Your task to perform on an android device: turn on notifications settings in the gmail app Image 0: 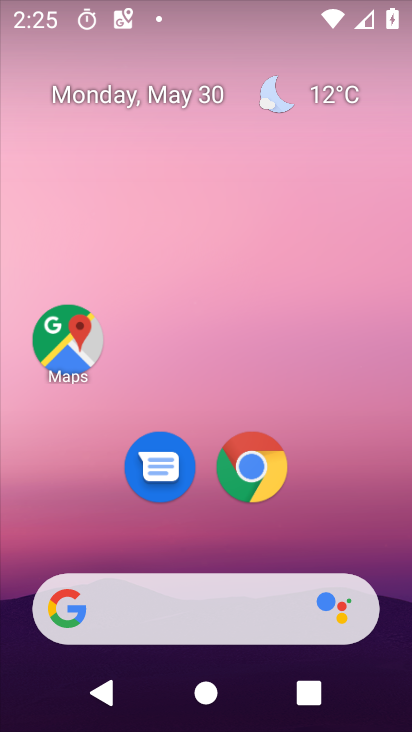
Step 0: drag from (388, 533) to (392, 151)
Your task to perform on an android device: turn on notifications settings in the gmail app Image 1: 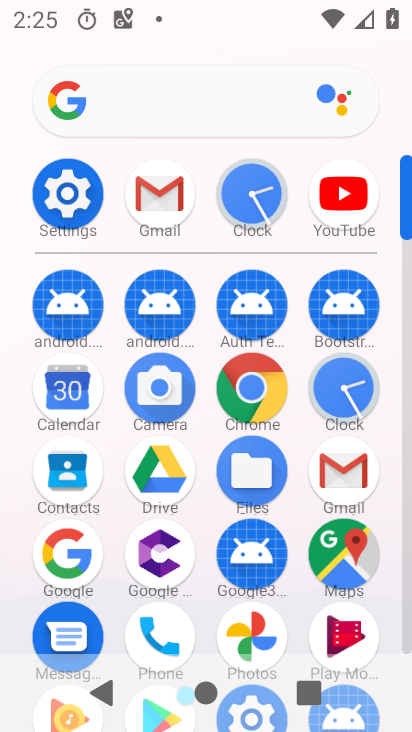
Step 1: click (153, 203)
Your task to perform on an android device: turn on notifications settings in the gmail app Image 2: 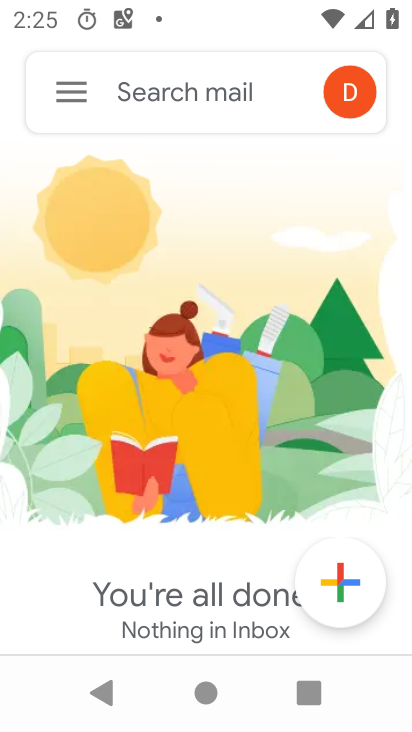
Step 2: click (69, 100)
Your task to perform on an android device: turn on notifications settings in the gmail app Image 3: 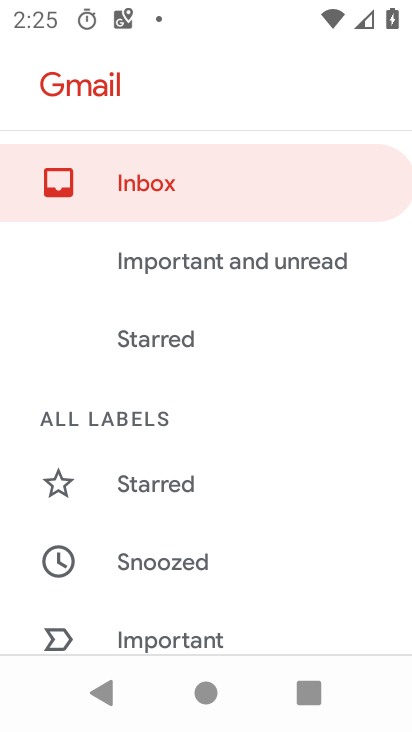
Step 3: drag from (293, 608) to (321, 259)
Your task to perform on an android device: turn on notifications settings in the gmail app Image 4: 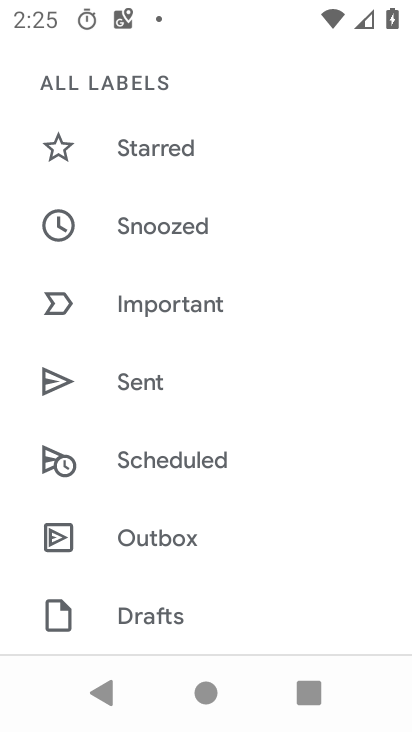
Step 4: drag from (304, 602) to (313, 273)
Your task to perform on an android device: turn on notifications settings in the gmail app Image 5: 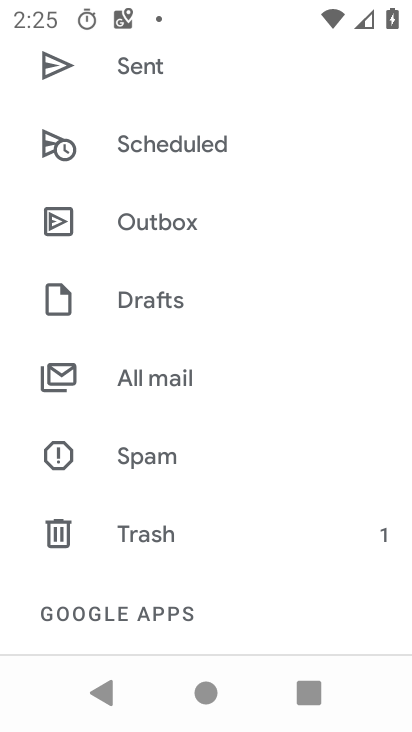
Step 5: drag from (247, 585) to (301, 237)
Your task to perform on an android device: turn on notifications settings in the gmail app Image 6: 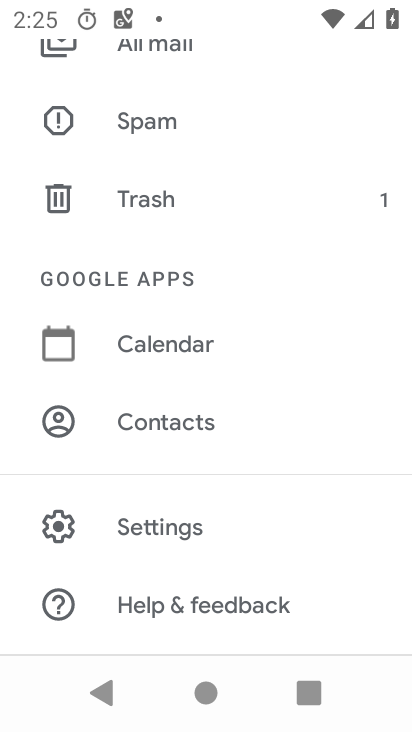
Step 6: drag from (285, 544) to (303, 201)
Your task to perform on an android device: turn on notifications settings in the gmail app Image 7: 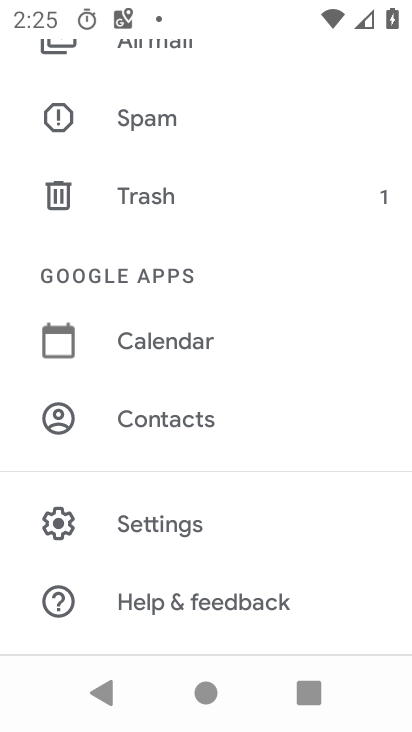
Step 7: click (140, 520)
Your task to perform on an android device: turn on notifications settings in the gmail app Image 8: 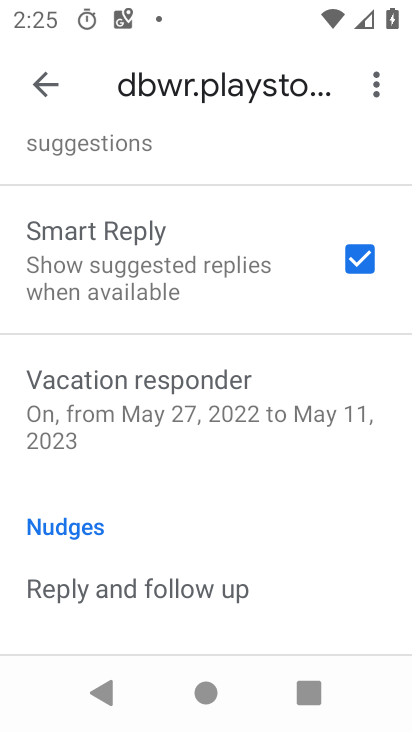
Step 8: click (37, 77)
Your task to perform on an android device: turn on notifications settings in the gmail app Image 9: 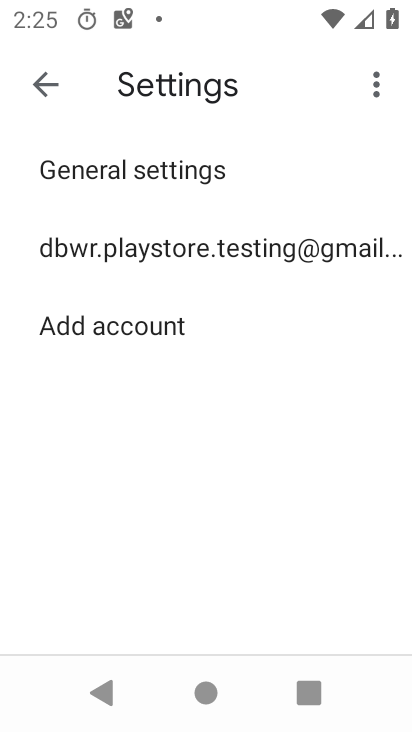
Step 9: click (74, 161)
Your task to perform on an android device: turn on notifications settings in the gmail app Image 10: 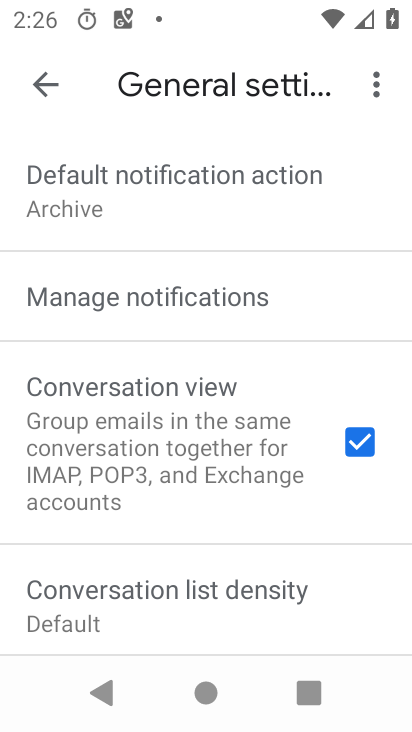
Step 10: drag from (184, 608) to (235, 328)
Your task to perform on an android device: turn on notifications settings in the gmail app Image 11: 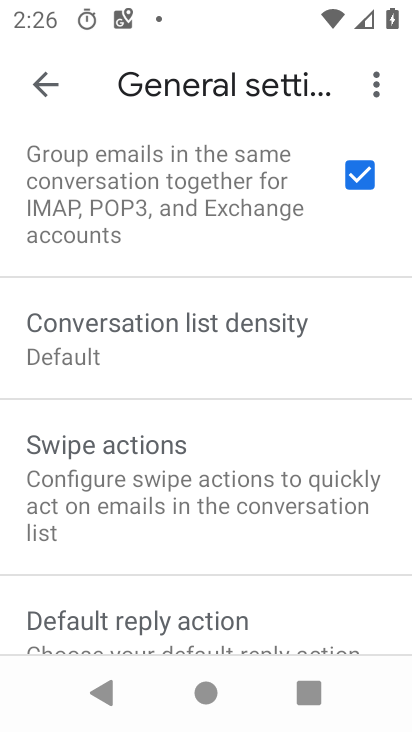
Step 11: drag from (162, 167) to (128, 546)
Your task to perform on an android device: turn on notifications settings in the gmail app Image 12: 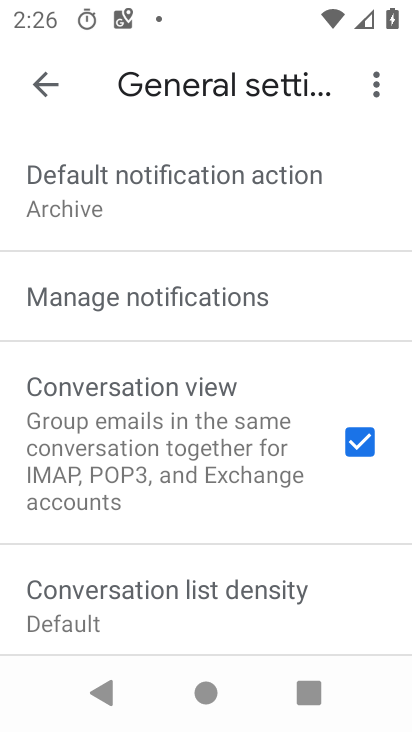
Step 12: click (87, 292)
Your task to perform on an android device: turn on notifications settings in the gmail app Image 13: 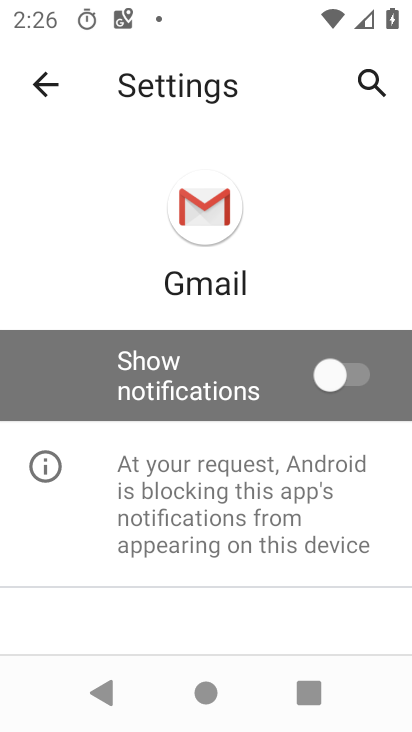
Step 13: click (343, 376)
Your task to perform on an android device: turn on notifications settings in the gmail app Image 14: 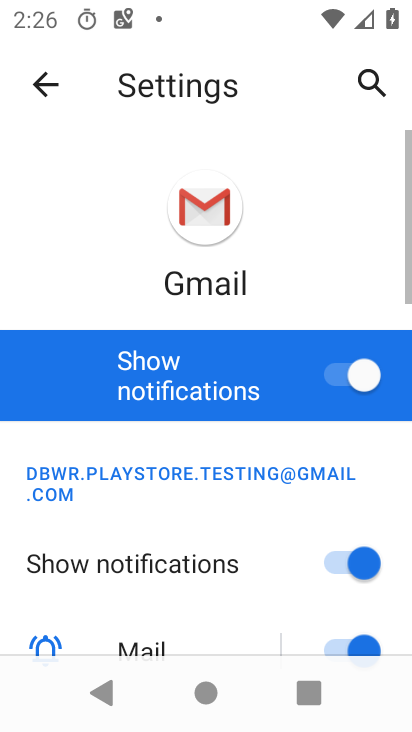
Step 14: task complete